Your task to perform on an android device: Go to Maps Image 0: 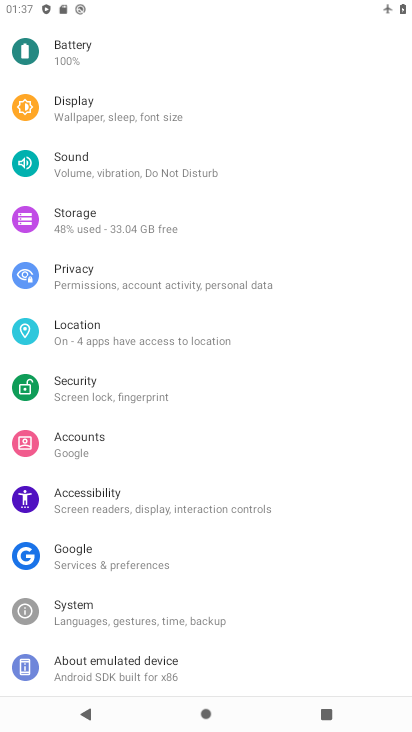
Step 0: press home button
Your task to perform on an android device: Go to Maps Image 1: 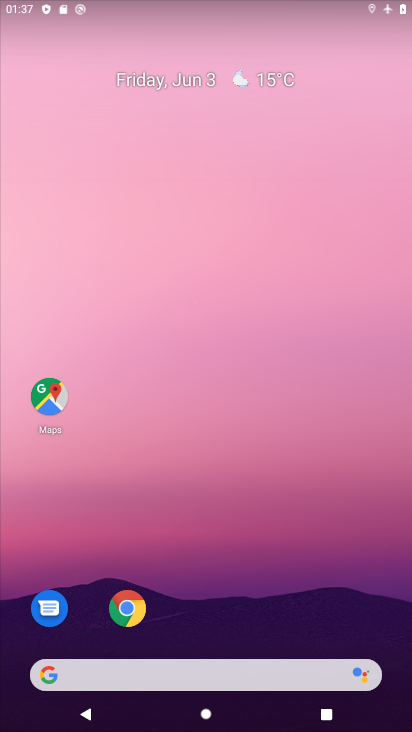
Step 1: click (58, 404)
Your task to perform on an android device: Go to Maps Image 2: 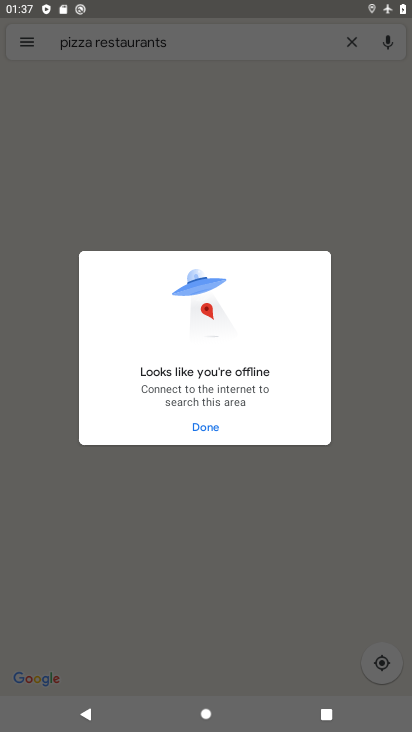
Step 2: click (208, 424)
Your task to perform on an android device: Go to Maps Image 3: 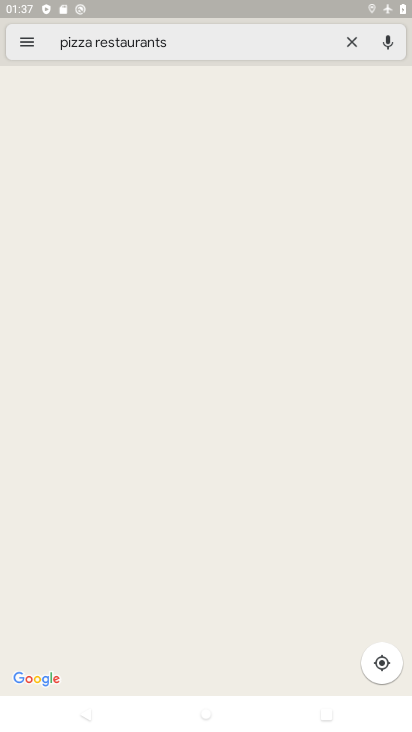
Step 3: task complete